Your task to perform on an android device: Open calendar and show me the first week of next month Image 0: 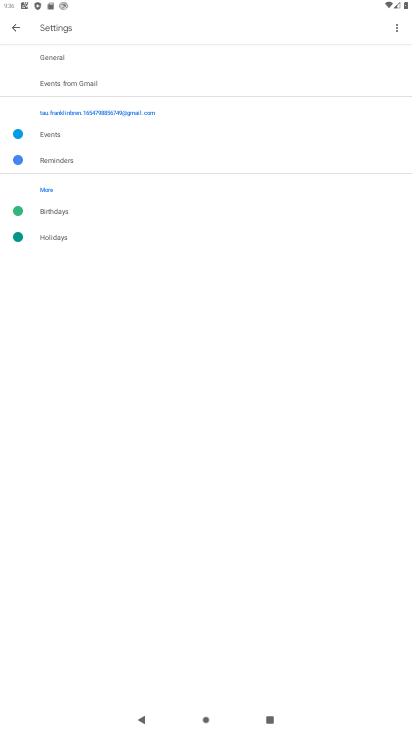
Step 0: press home button
Your task to perform on an android device: Open calendar and show me the first week of next month Image 1: 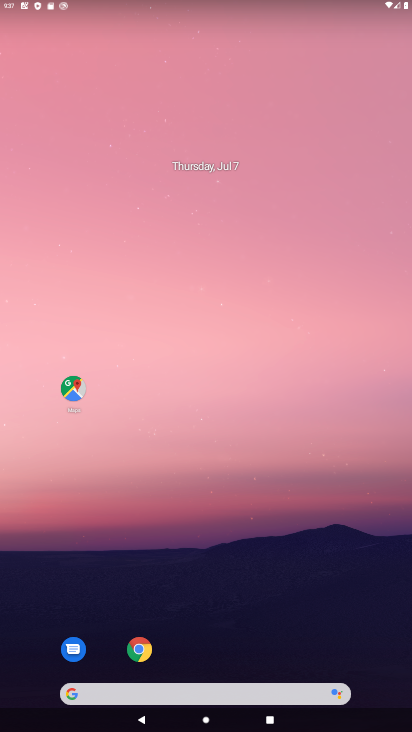
Step 1: drag from (293, 594) to (266, 335)
Your task to perform on an android device: Open calendar and show me the first week of next month Image 2: 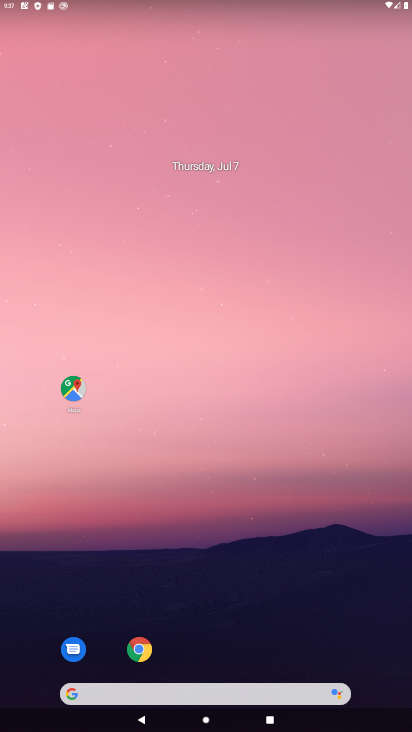
Step 2: drag from (237, 536) to (193, 211)
Your task to perform on an android device: Open calendar and show me the first week of next month Image 3: 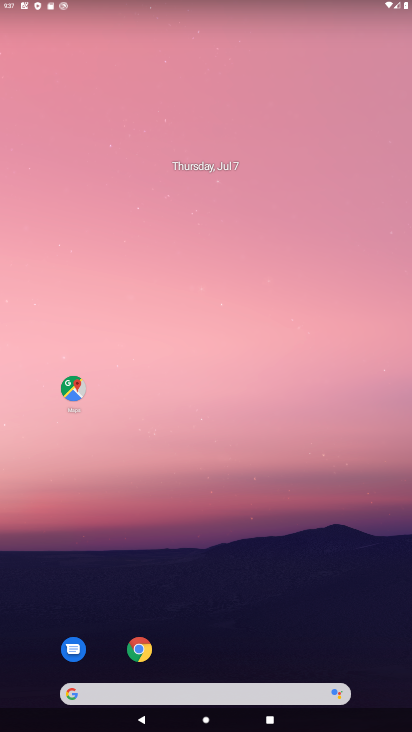
Step 3: drag from (227, 558) to (202, 171)
Your task to perform on an android device: Open calendar and show me the first week of next month Image 4: 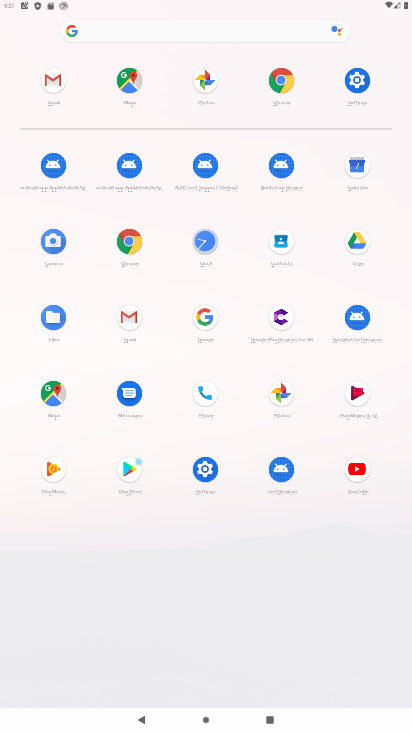
Step 4: click (356, 168)
Your task to perform on an android device: Open calendar and show me the first week of next month Image 5: 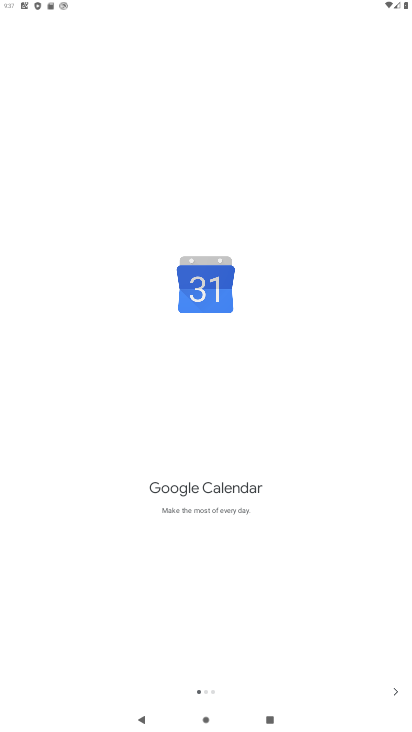
Step 5: drag from (249, 293) to (6, 369)
Your task to perform on an android device: Open calendar and show me the first week of next month Image 6: 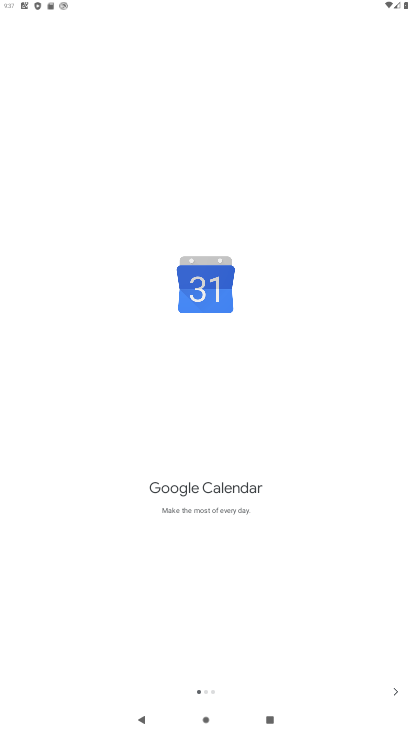
Step 6: drag from (238, 365) to (69, 400)
Your task to perform on an android device: Open calendar and show me the first week of next month Image 7: 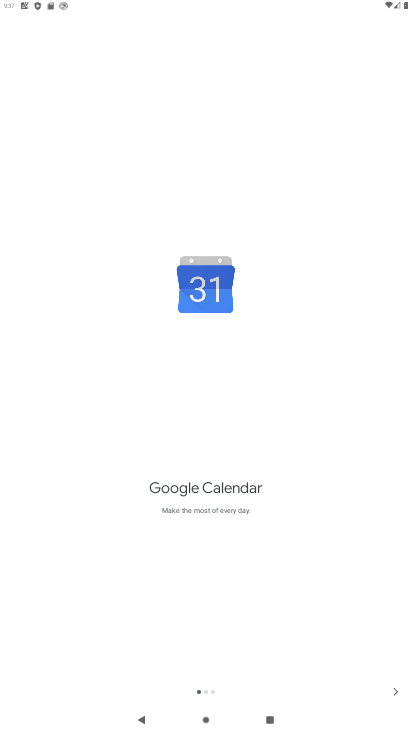
Step 7: drag from (215, 302) to (20, 503)
Your task to perform on an android device: Open calendar and show me the first week of next month Image 8: 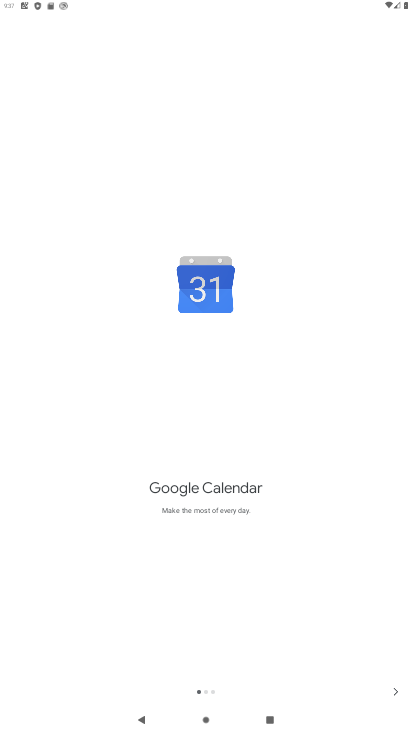
Step 8: click (395, 689)
Your task to perform on an android device: Open calendar and show me the first week of next month Image 9: 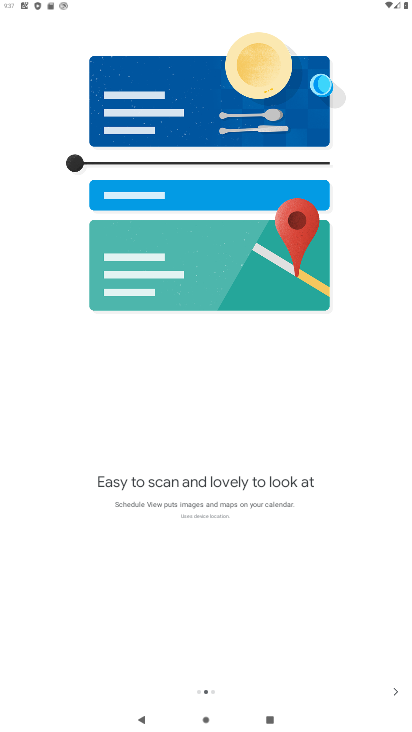
Step 9: click (395, 689)
Your task to perform on an android device: Open calendar and show me the first week of next month Image 10: 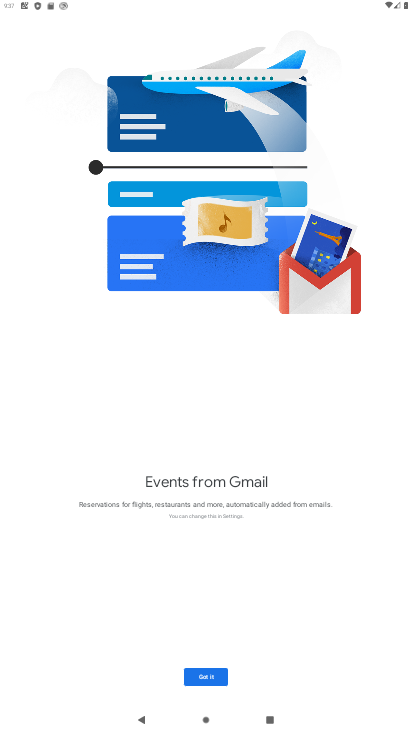
Step 10: click (199, 675)
Your task to perform on an android device: Open calendar and show me the first week of next month Image 11: 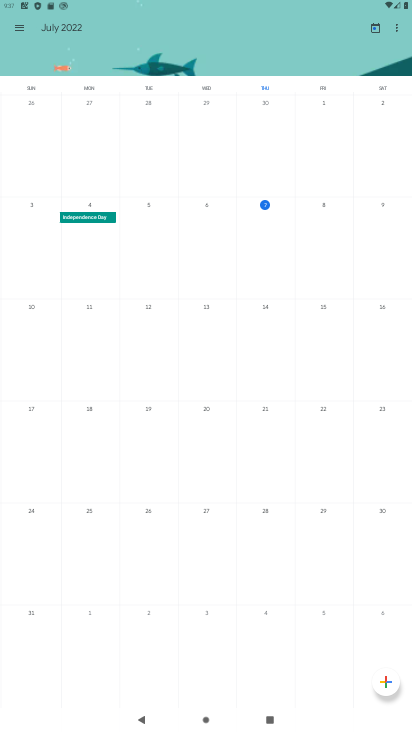
Step 11: click (22, 27)
Your task to perform on an android device: Open calendar and show me the first week of next month Image 12: 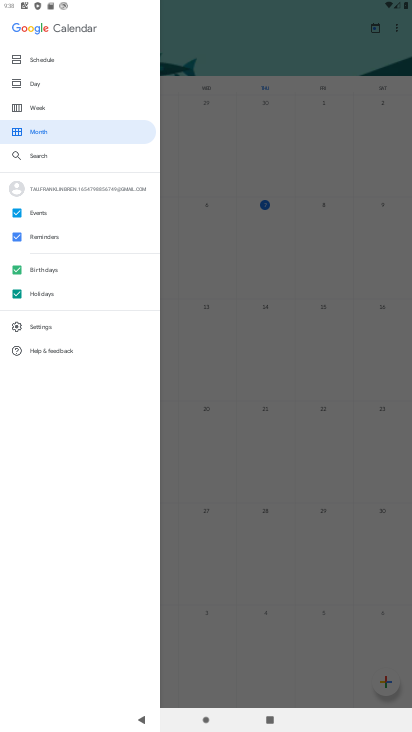
Step 12: click (246, 45)
Your task to perform on an android device: Open calendar and show me the first week of next month Image 13: 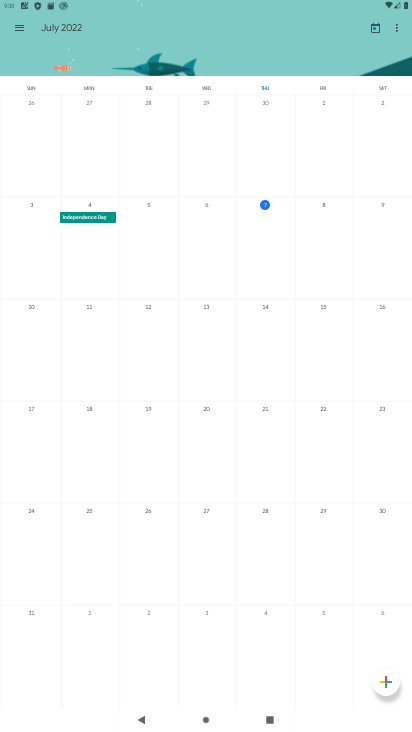
Step 13: click (378, 32)
Your task to perform on an android device: Open calendar and show me the first week of next month Image 14: 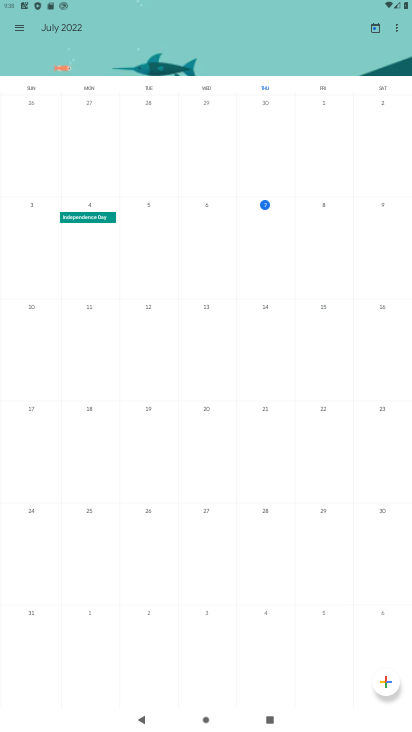
Step 14: click (371, 26)
Your task to perform on an android device: Open calendar and show me the first week of next month Image 15: 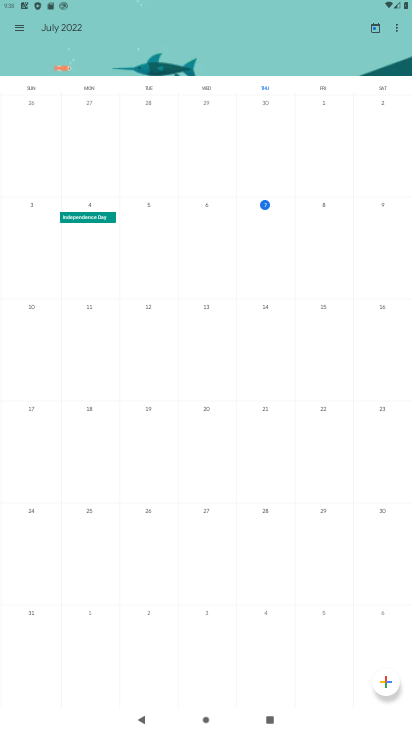
Step 15: task complete